Your task to perform on an android device: open sync settings in chrome Image 0: 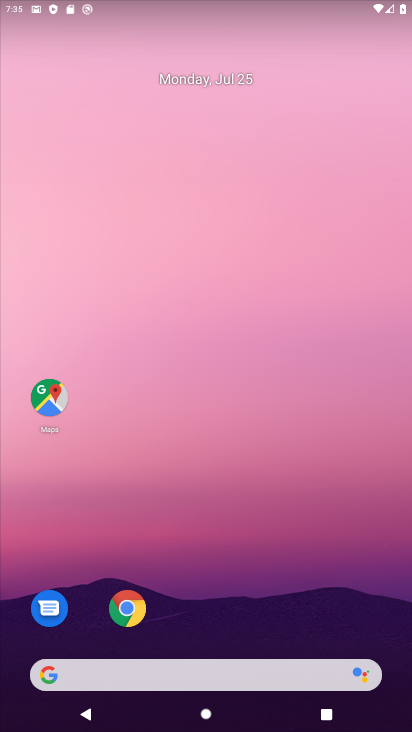
Step 0: click (133, 603)
Your task to perform on an android device: open sync settings in chrome Image 1: 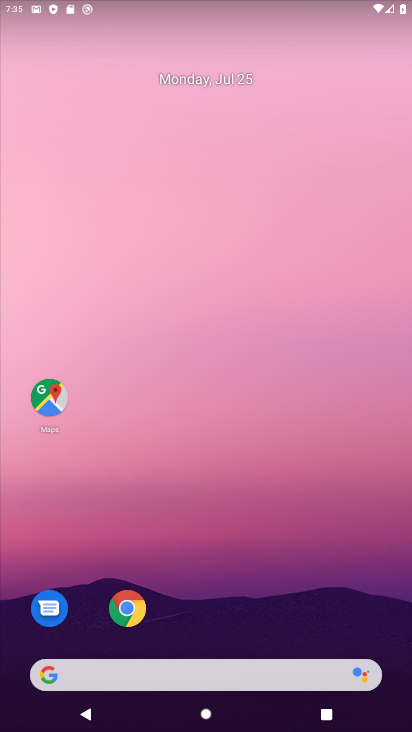
Step 1: click (133, 603)
Your task to perform on an android device: open sync settings in chrome Image 2: 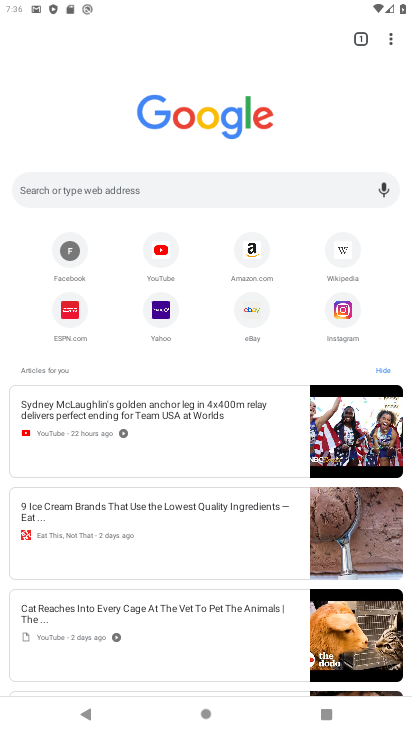
Step 2: click (388, 39)
Your task to perform on an android device: open sync settings in chrome Image 3: 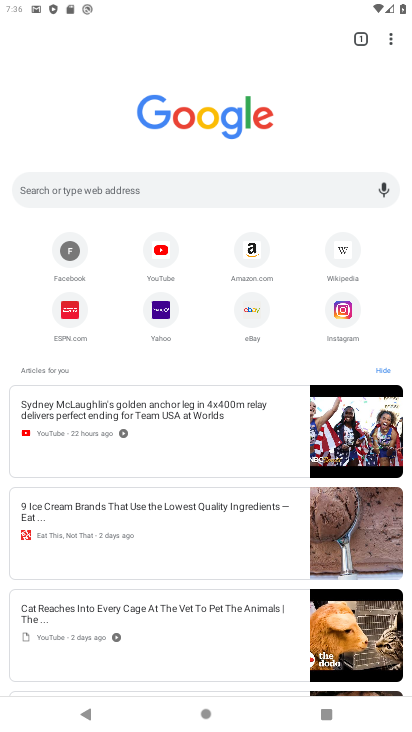
Step 3: click (388, 39)
Your task to perform on an android device: open sync settings in chrome Image 4: 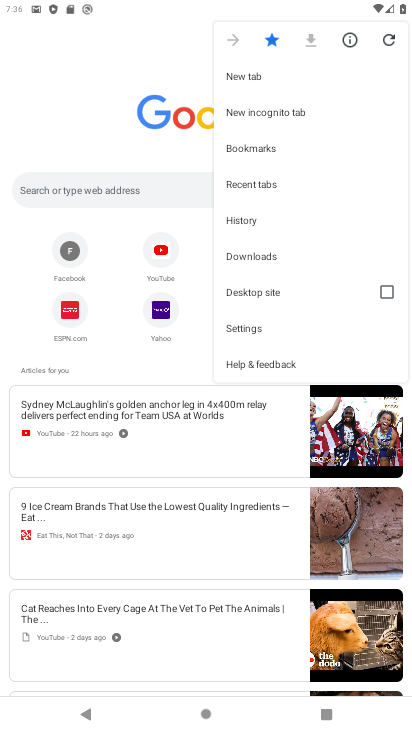
Step 4: click (267, 325)
Your task to perform on an android device: open sync settings in chrome Image 5: 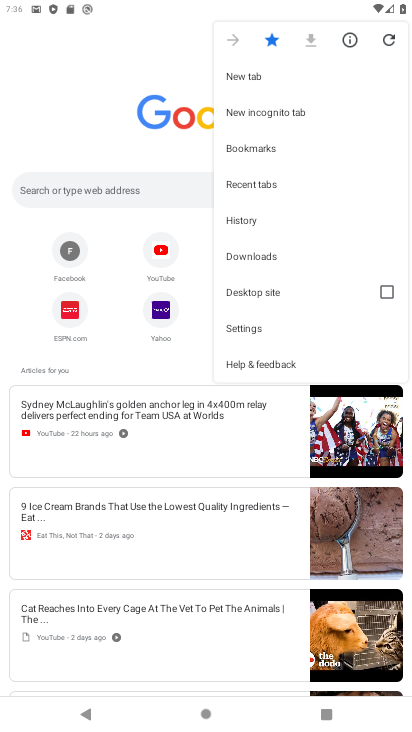
Step 5: click (267, 325)
Your task to perform on an android device: open sync settings in chrome Image 6: 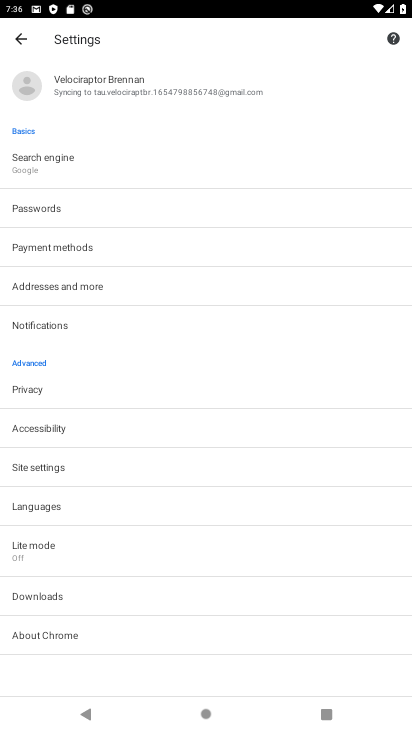
Step 6: click (99, 89)
Your task to perform on an android device: open sync settings in chrome Image 7: 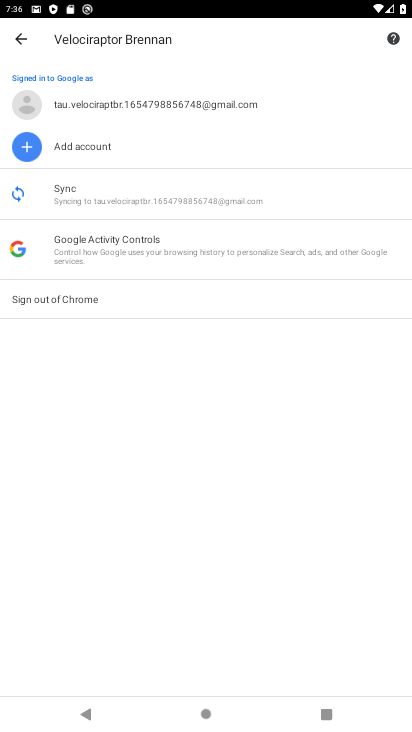
Step 7: task complete